Your task to perform on an android device: Open settings on Google Maps Image 0: 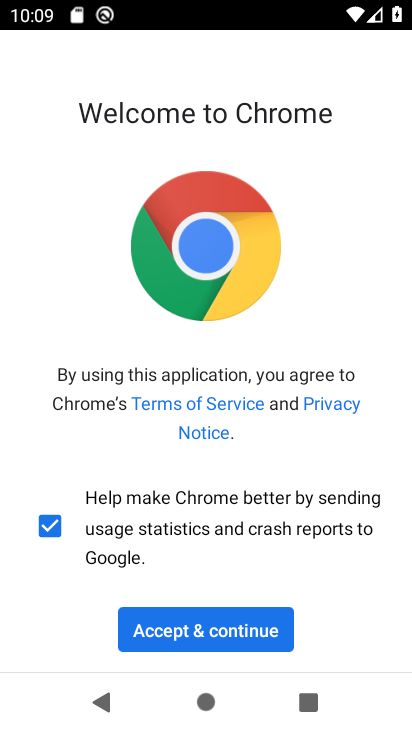
Step 0: press home button
Your task to perform on an android device: Open settings on Google Maps Image 1: 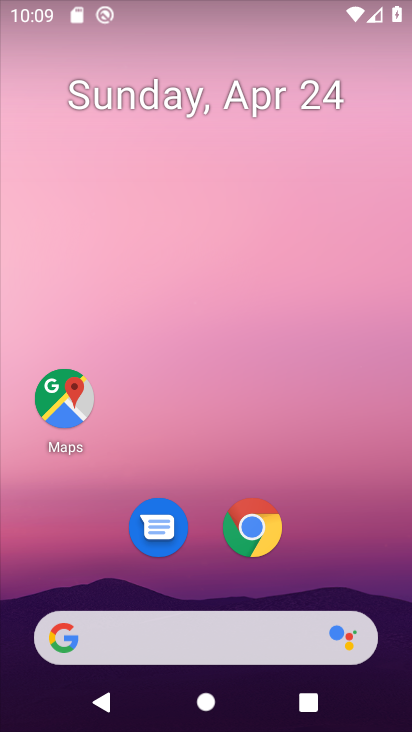
Step 1: drag from (183, 235) to (183, 117)
Your task to perform on an android device: Open settings on Google Maps Image 2: 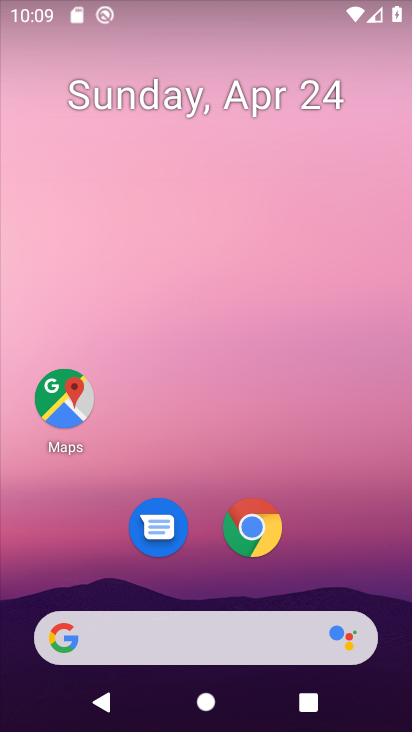
Step 2: click (73, 391)
Your task to perform on an android device: Open settings on Google Maps Image 3: 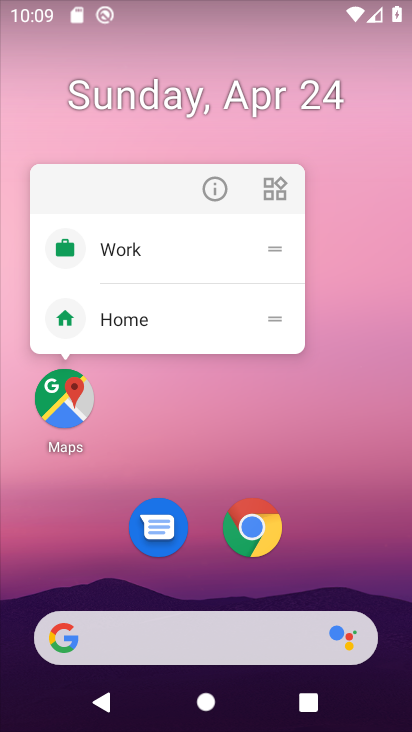
Step 3: click (77, 397)
Your task to perform on an android device: Open settings on Google Maps Image 4: 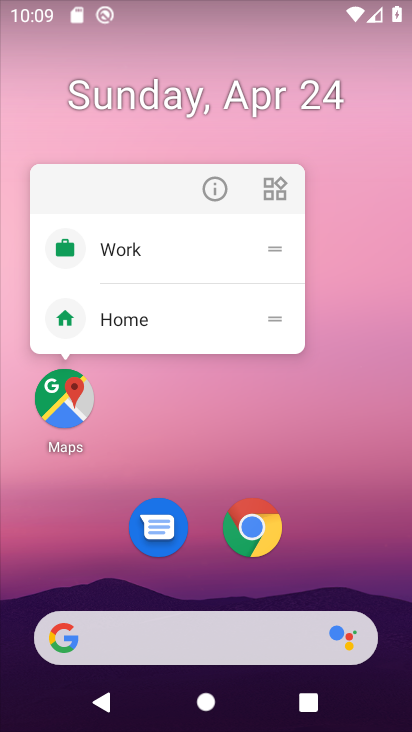
Step 4: click (210, 190)
Your task to perform on an android device: Open settings on Google Maps Image 5: 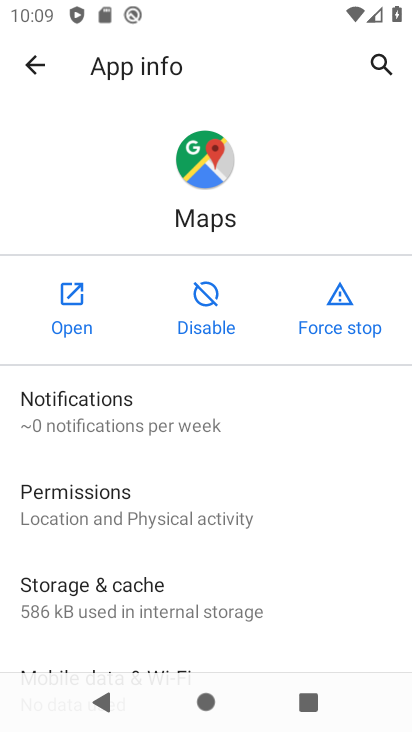
Step 5: click (57, 324)
Your task to perform on an android device: Open settings on Google Maps Image 6: 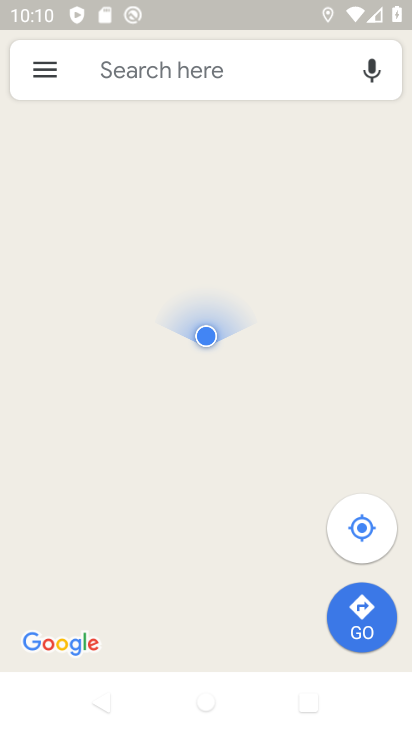
Step 6: click (50, 75)
Your task to perform on an android device: Open settings on Google Maps Image 7: 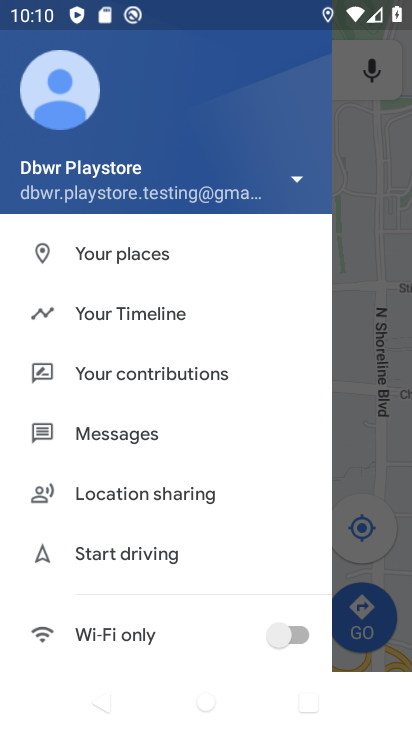
Step 7: drag from (137, 463) to (242, 33)
Your task to perform on an android device: Open settings on Google Maps Image 8: 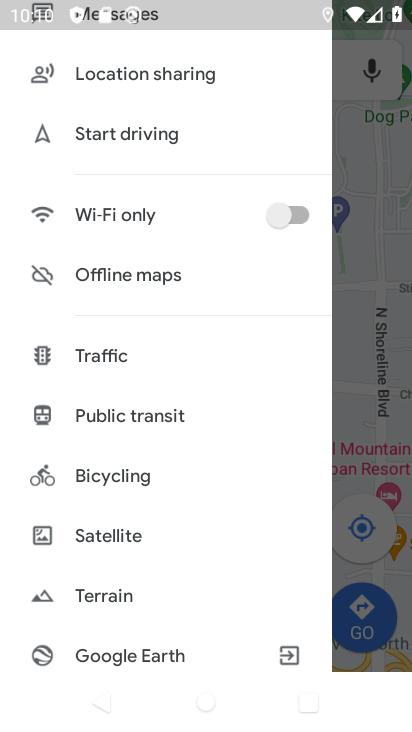
Step 8: drag from (105, 559) to (221, 42)
Your task to perform on an android device: Open settings on Google Maps Image 9: 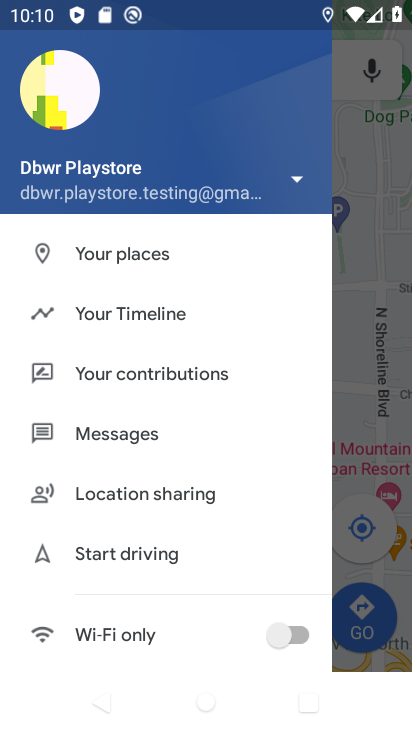
Step 9: drag from (123, 587) to (265, 37)
Your task to perform on an android device: Open settings on Google Maps Image 10: 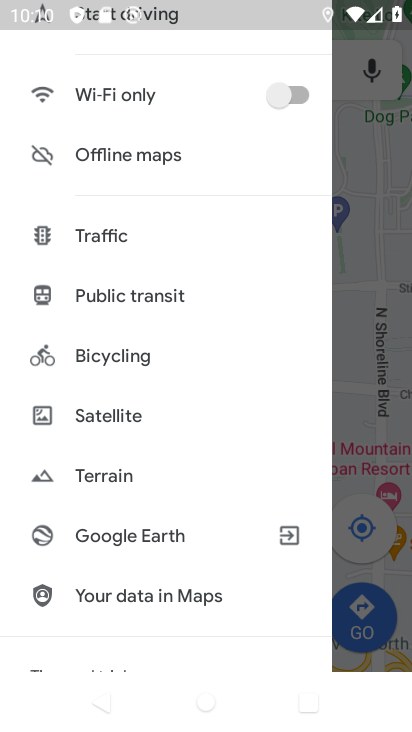
Step 10: drag from (122, 554) to (242, 7)
Your task to perform on an android device: Open settings on Google Maps Image 11: 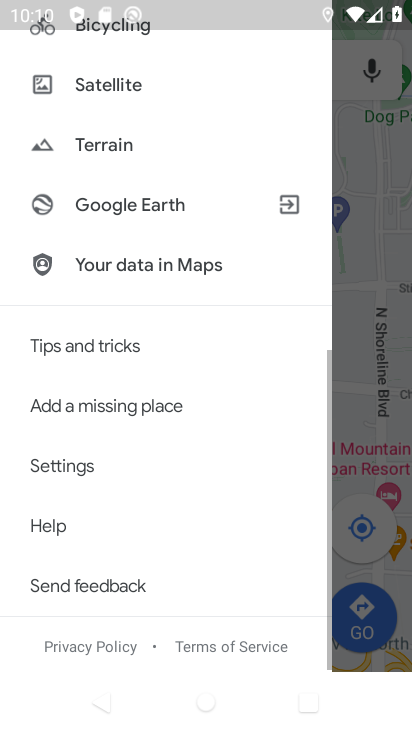
Step 11: click (73, 464)
Your task to perform on an android device: Open settings on Google Maps Image 12: 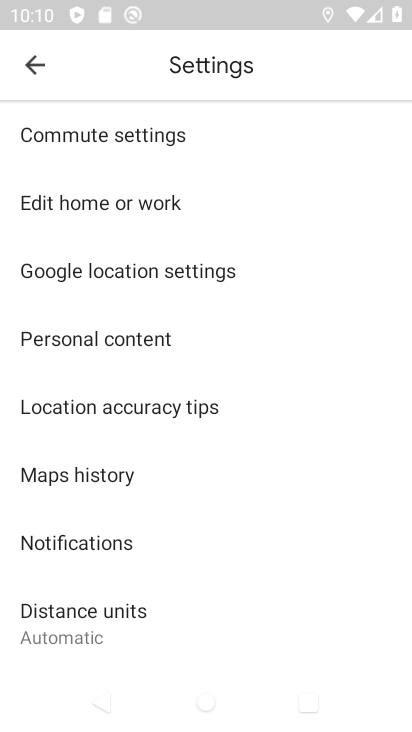
Step 12: task complete